Your task to perform on an android device: Open the stopwatch Image 0: 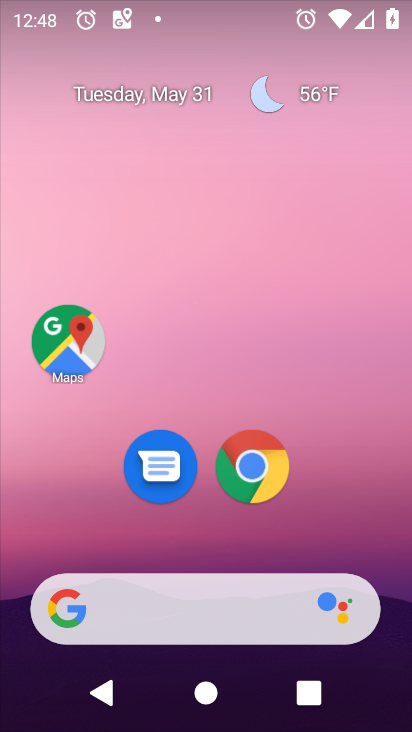
Step 0: drag from (175, 594) to (167, 157)
Your task to perform on an android device: Open the stopwatch Image 1: 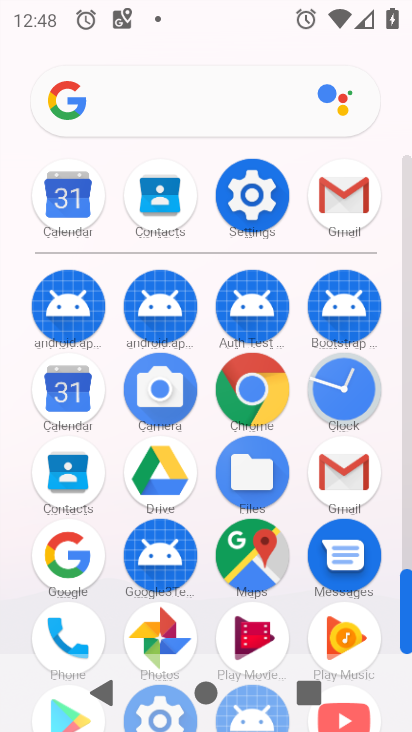
Step 1: click (336, 397)
Your task to perform on an android device: Open the stopwatch Image 2: 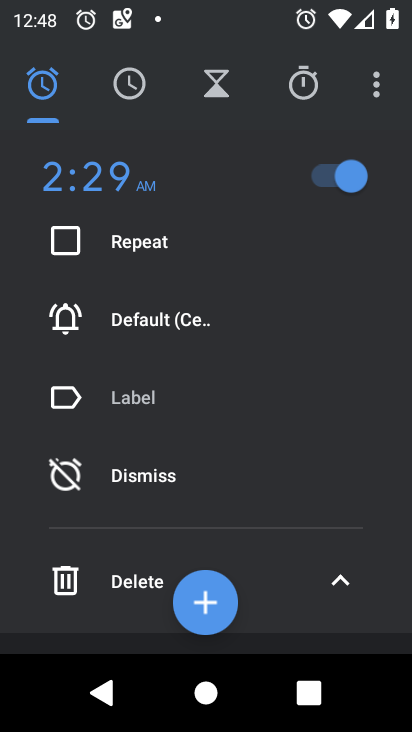
Step 2: click (300, 96)
Your task to perform on an android device: Open the stopwatch Image 3: 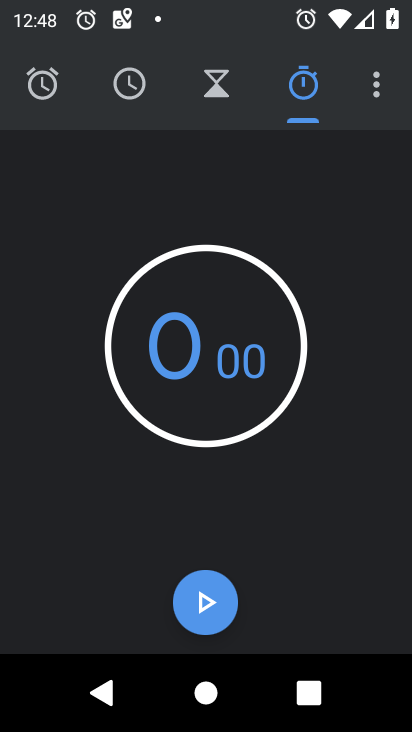
Step 3: task complete